Your task to perform on an android device: create a new album in the google photos Image 0: 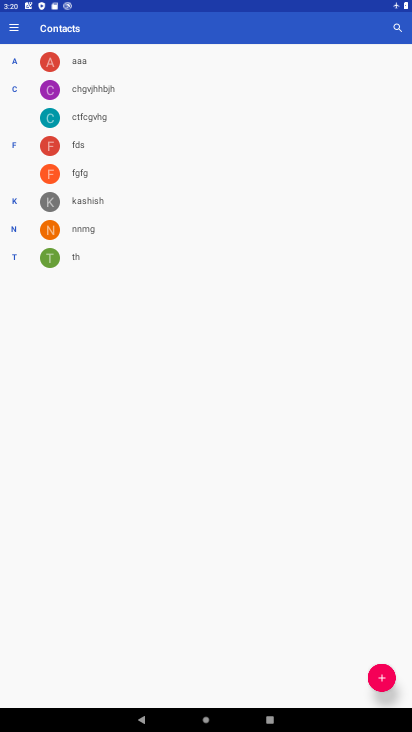
Step 0: press home button
Your task to perform on an android device: create a new album in the google photos Image 1: 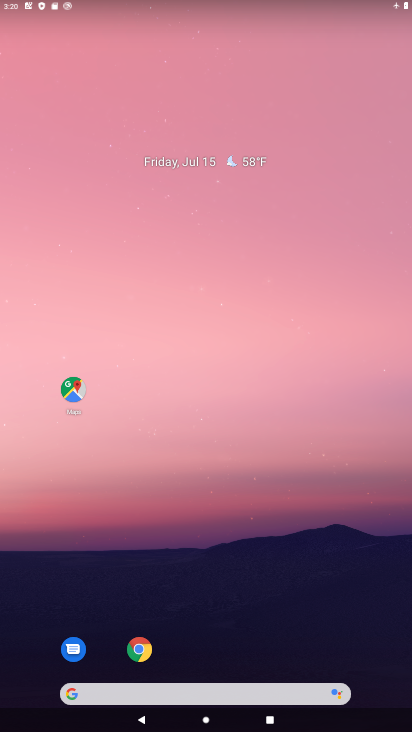
Step 1: drag from (237, 729) to (211, 236)
Your task to perform on an android device: create a new album in the google photos Image 2: 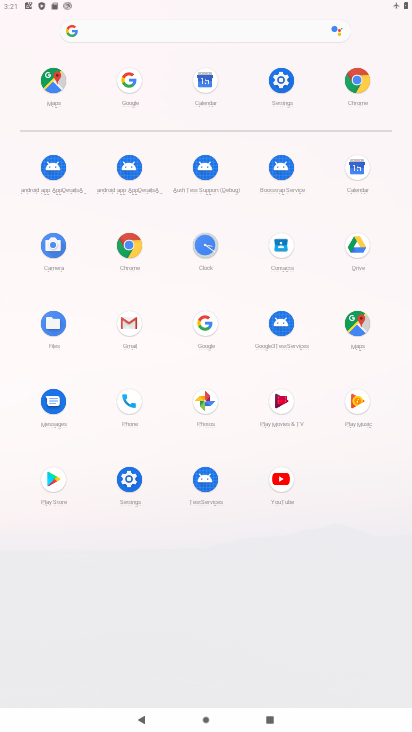
Step 2: click (205, 400)
Your task to perform on an android device: create a new album in the google photos Image 3: 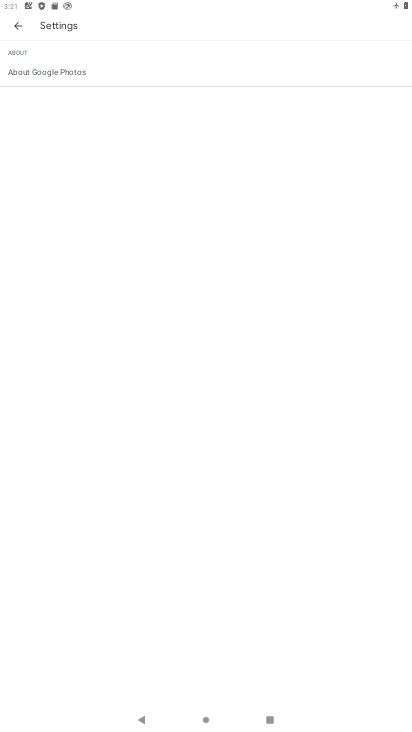
Step 3: click (18, 25)
Your task to perform on an android device: create a new album in the google photos Image 4: 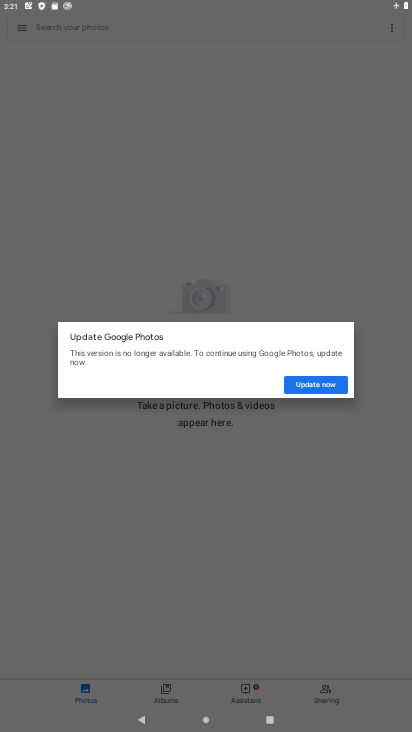
Step 4: task complete